Your task to perform on an android device: turn off airplane mode Image 0: 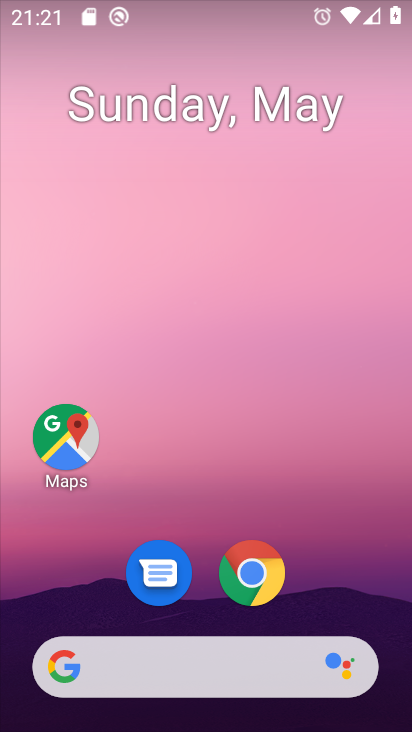
Step 0: drag from (216, 465) to (251, 0)
Your task to perform on an android device: turn off airplane mode Image 1: 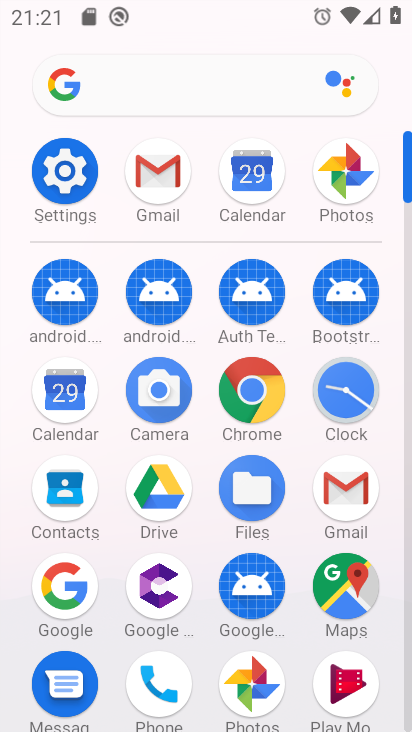
Step 1: click (59, 161)
Your task to perform on an android device: turn off airplane mode Image 2: 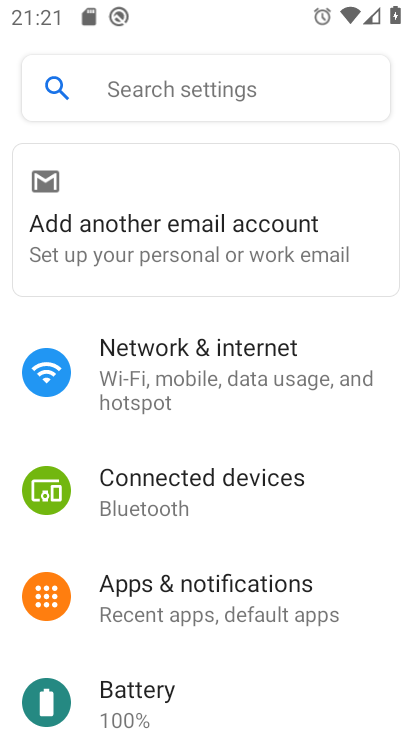
Step 2: click (198, 363)
Your task to perform on an android device: turn off airplane mode Image 3: 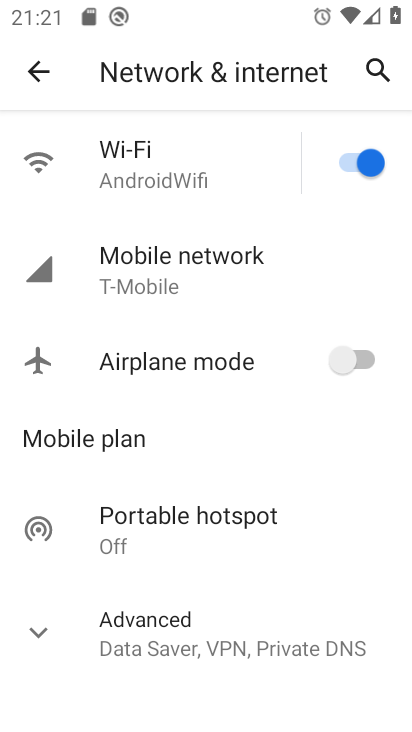
Step 3: task complete